Your task to perform on an android device: Open settings Image 0: 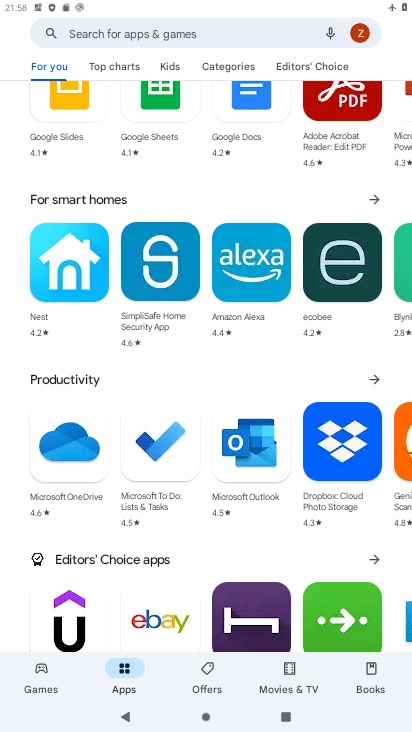
Step 0: press home button
Your task to perform on an android device: Open settings Image 1: 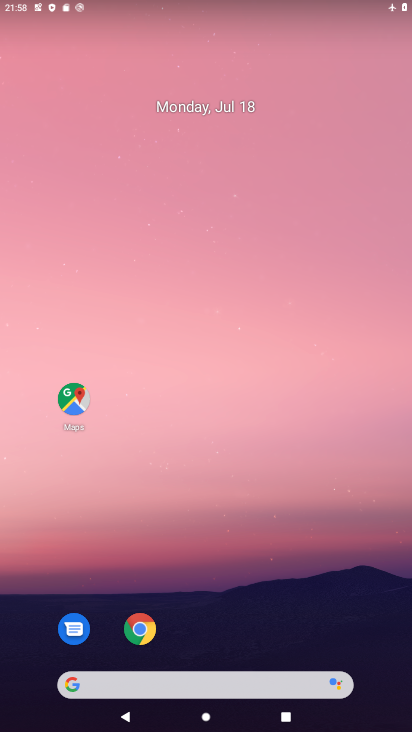
Step 1: click (230, 317)
Your task to perform on an android device: Open settings Image 2: 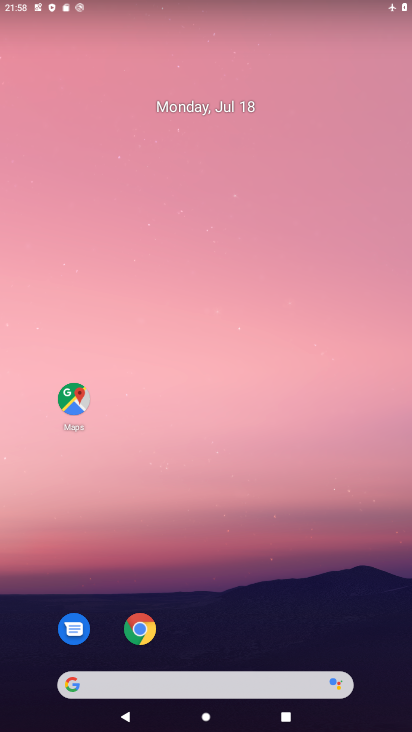
Step 2: drag from (272, 532) to (273, 148)
Your task to perform on an android device: Open settings Image 3: 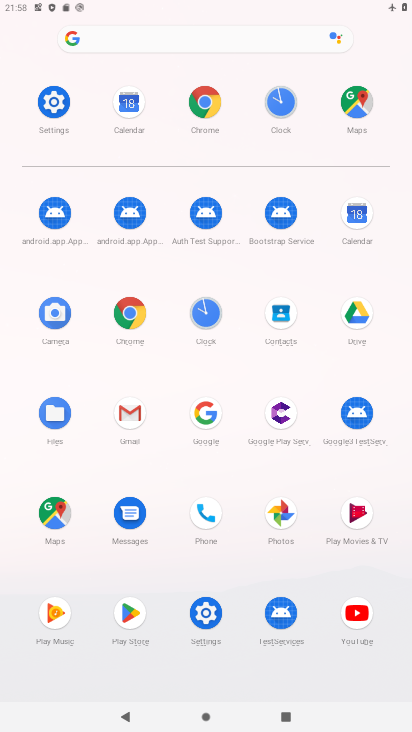
Step 3: click (51, 102)
Your task to perform on an android device: Open settings Image 4: 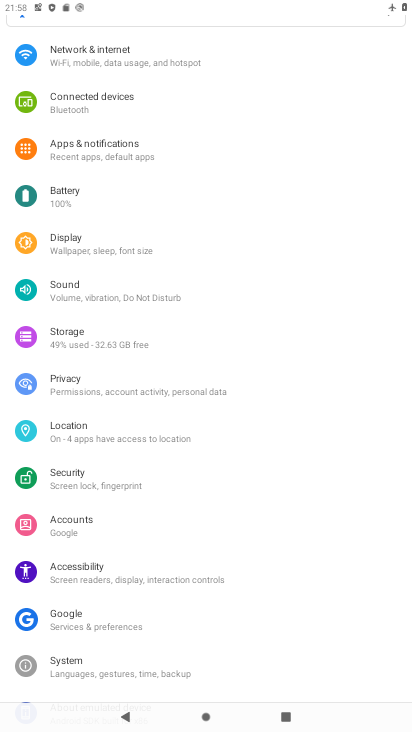
Step 4: task complete